Your task to perform on an android device: check storage Image 0: 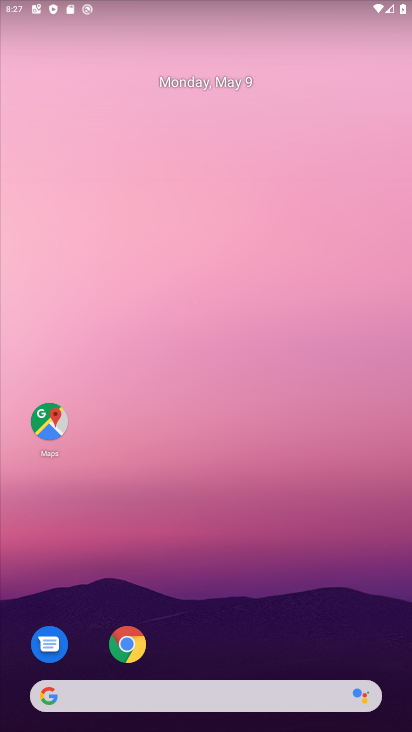
Step 0: drag from (213, 618) to (182, 164)
Your task to perform on an android device: check storage Image 1: 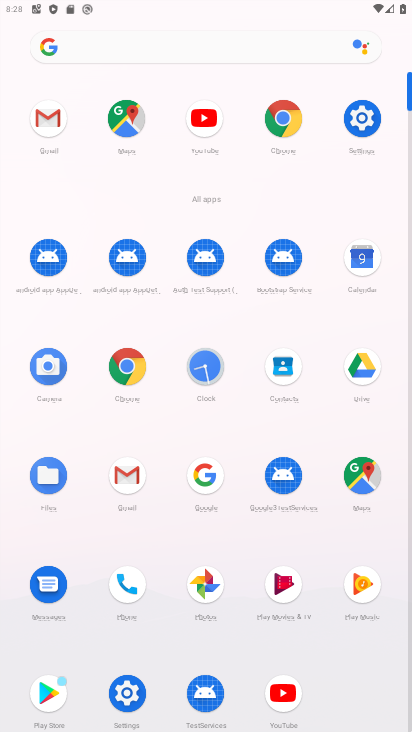
Step 1: click (363, 113)
Your task to perform on an android device: check storage Image 2: 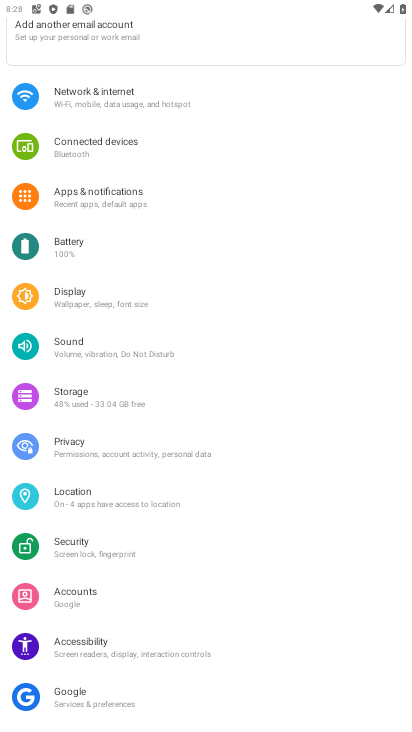
Step 2: click (67, 390)
Your task to perform on an android device: check storage Image 3: 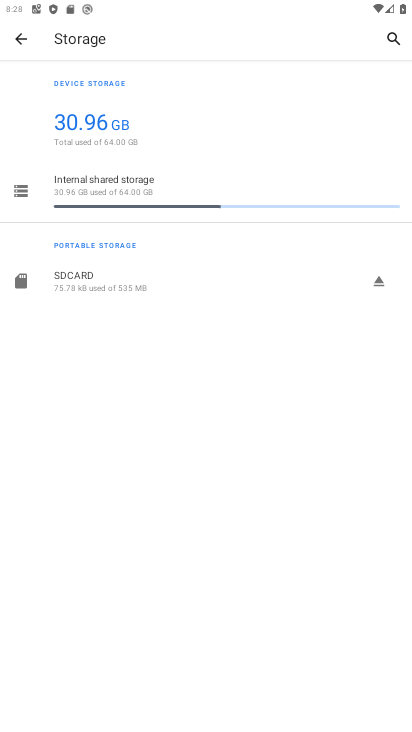
Step 3: task complete